Your task to perform on an android device: Search for the best selling coffee table on Crate & Barrel Image 0: 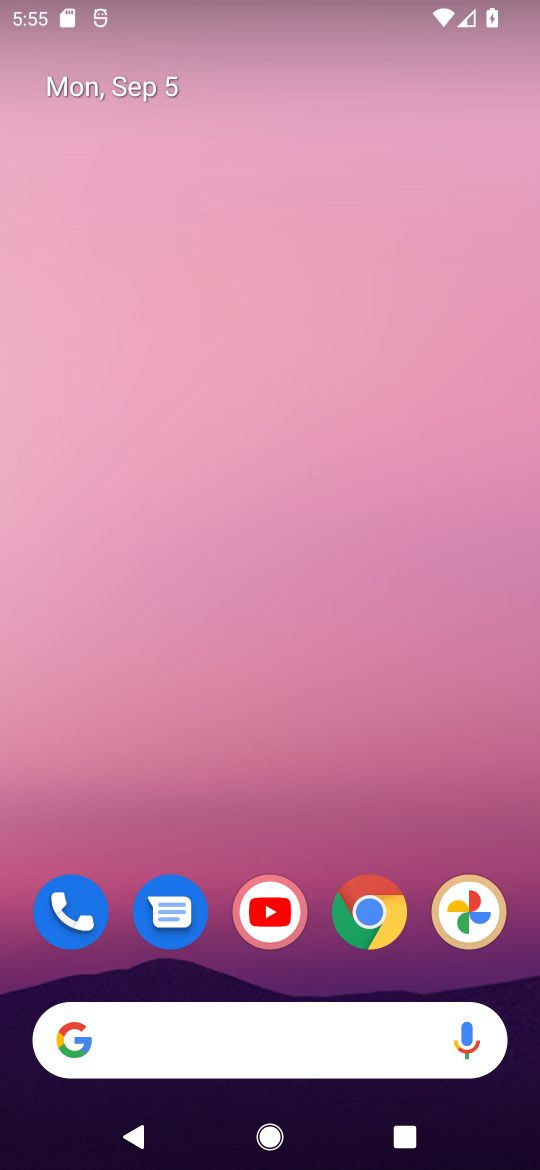
Step 0: click (369, 904)
Your task to perform on an android device: Search for the best selling coffee table on Crate & Barrel Image 1: 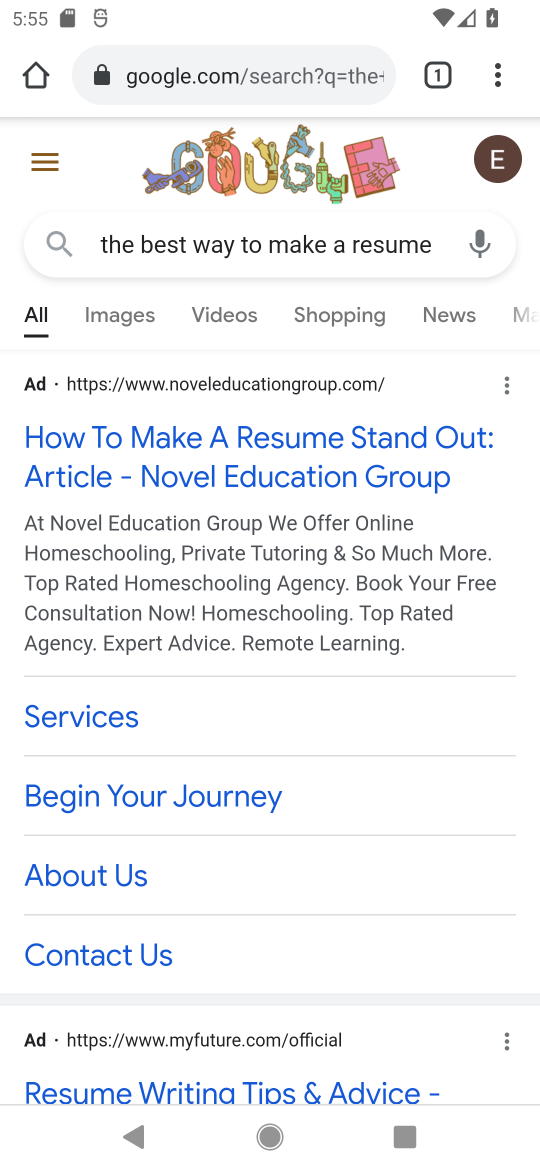
Step 1: click (224, 68)
Your task to perform on an android device: Search for the best selling coffee table on Crate & Barrel Image 2: 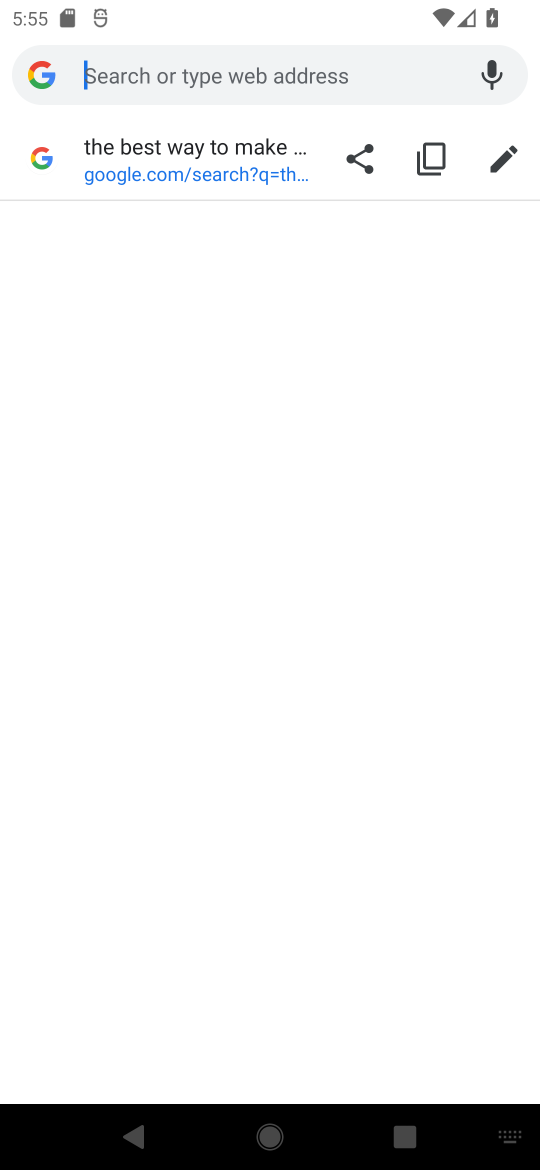
Step 2: type "crate and barrels"
Your task to perform on an android device: Search for the best selling coffee table on Crate & Barrel Image 3: 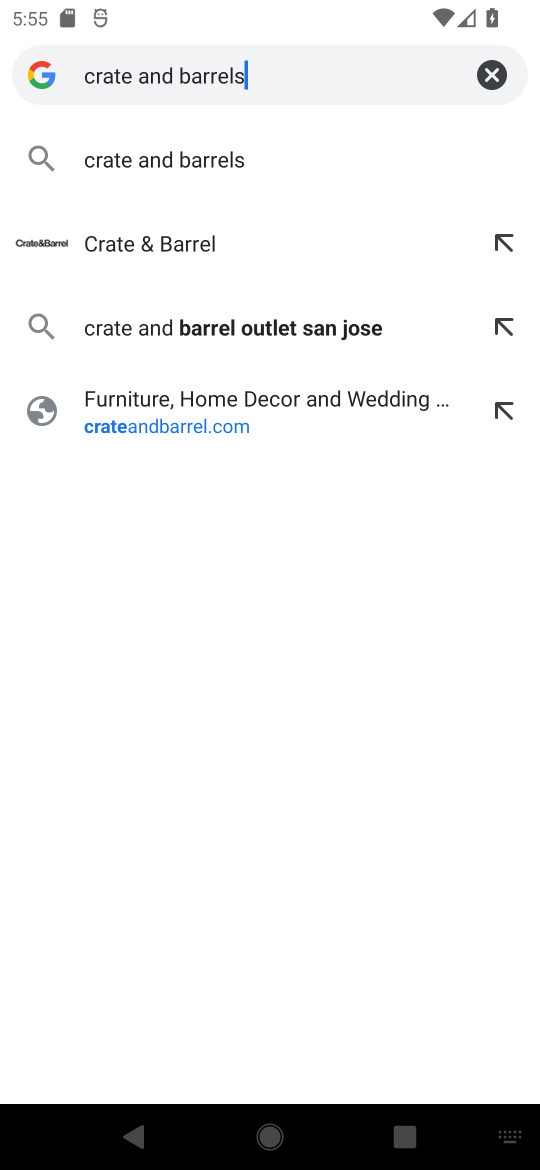
Step 3: click (204, 148)
Your task to perform on an android device: Search for the best selling coffee table on Crate & Barrel Image 4: 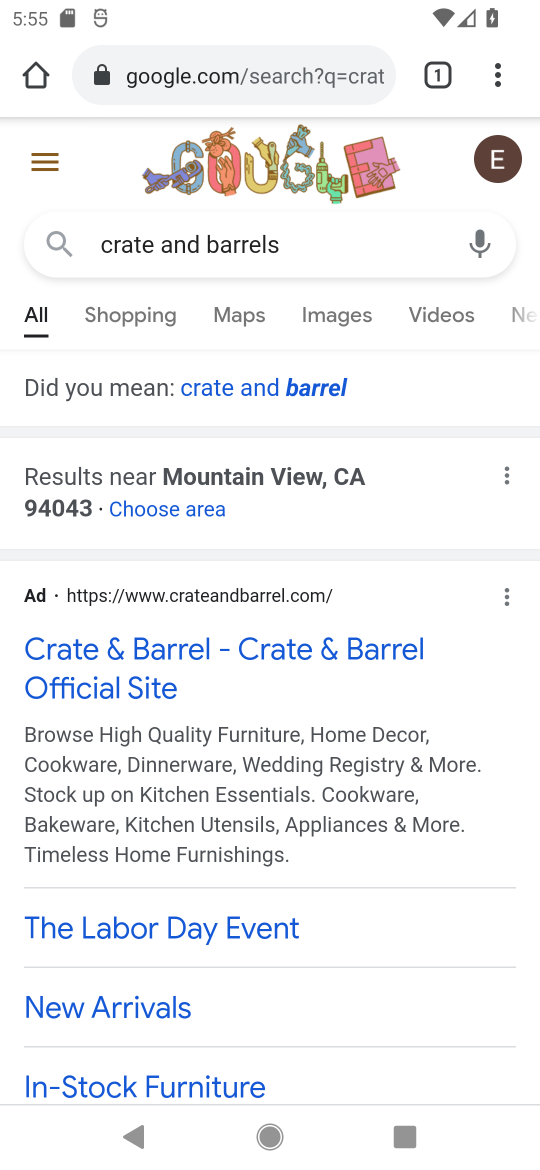
Step 4: click (143, 692)
Your task to perform on an android device: Search for the best selling coffee table on Crate & Barrel Image 5: 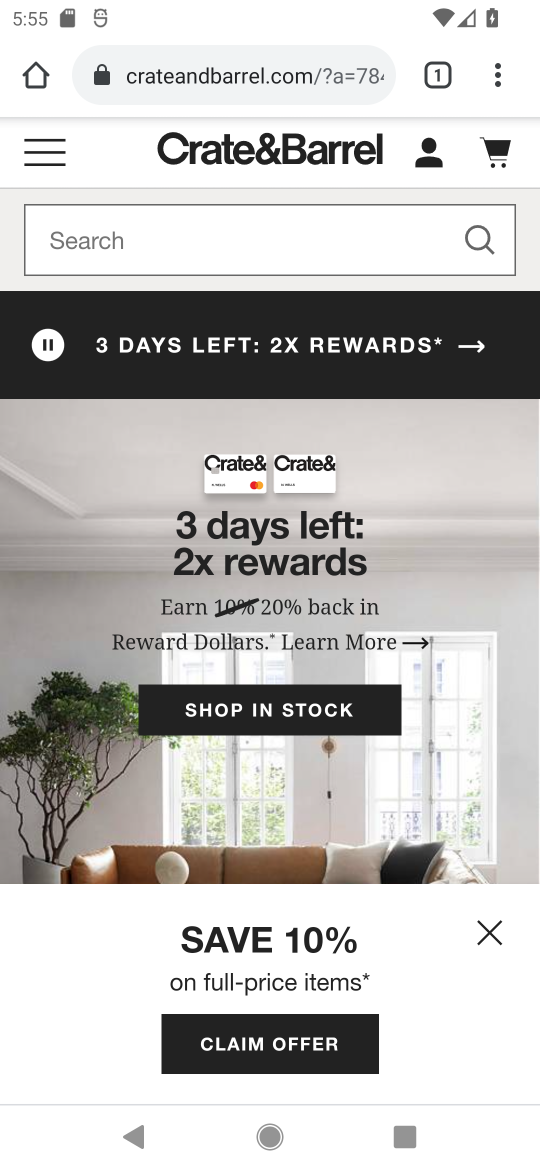
Step 5: click (241, 239)
Your task to perform on an android device: Search for the best selling coffee table on Crate & Barrel Image 6: 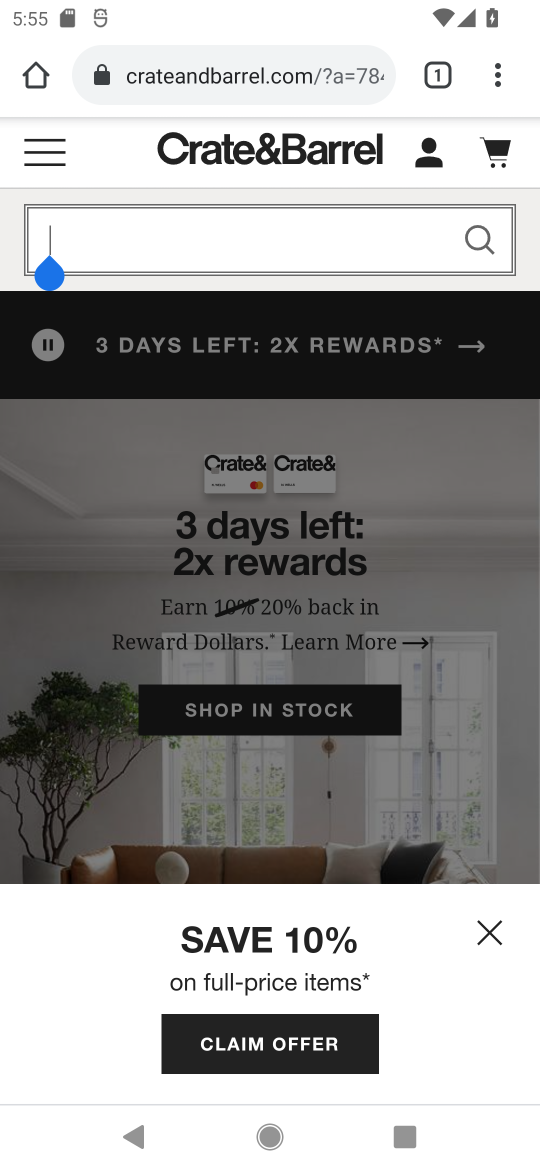
Step 6: drag from (457, 1163) to (442, 1075)
Your task to perform on an android device: Search for the best selling coffee table on Crate & Barrel Image 7: 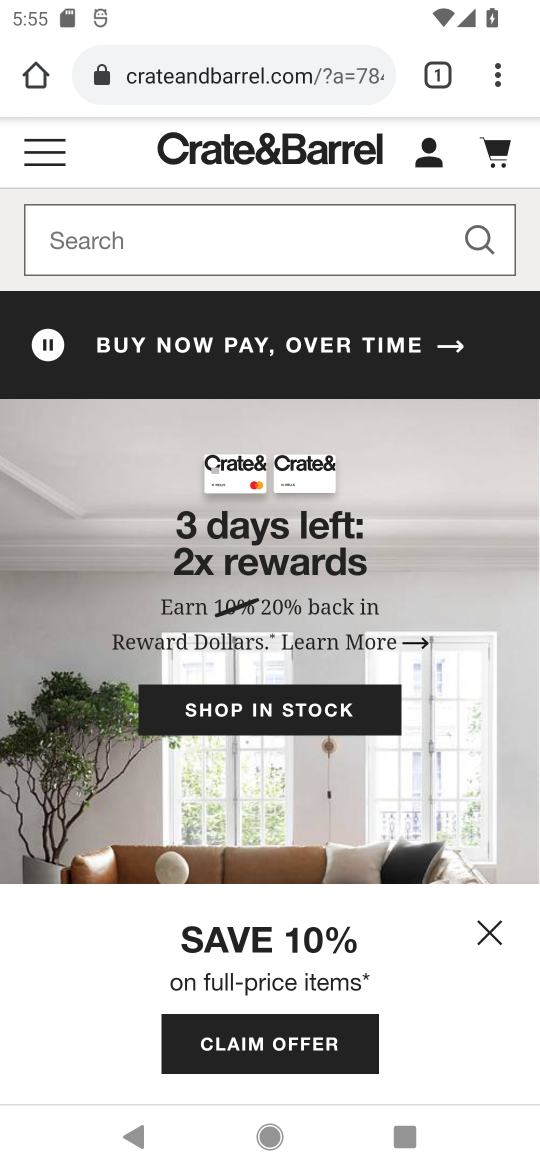
Step 7: type "the best selling coffee table"
Your task to perform on an android device: Search for the best selling coffee table on Crate & Barrel Image 8: 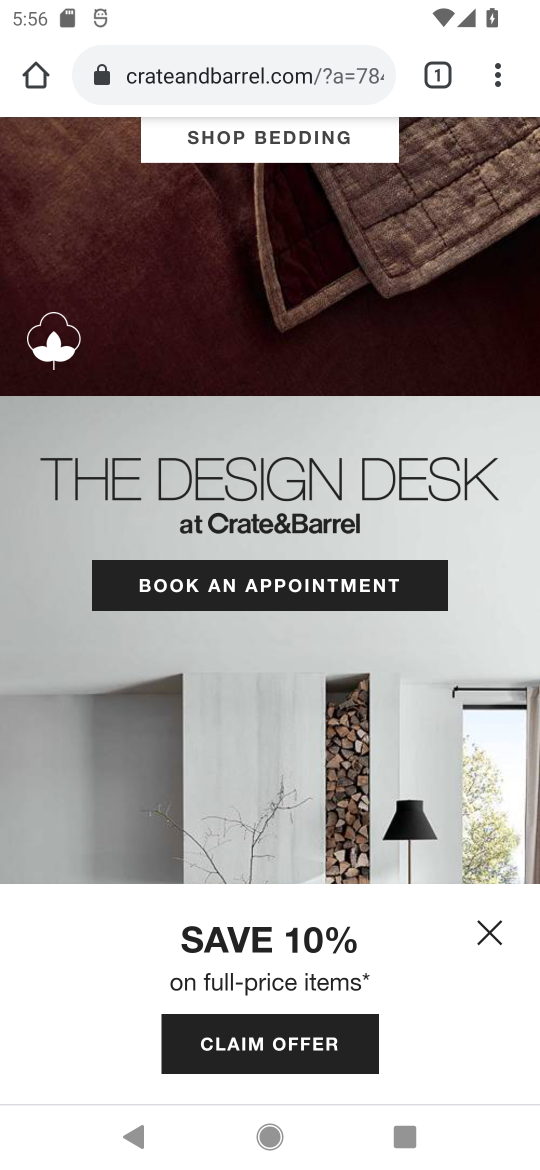
Step 8: click (487, 912)
Your task to perform on an android device: Search for the best selling coffee table on Crate & Barrel Image 9: 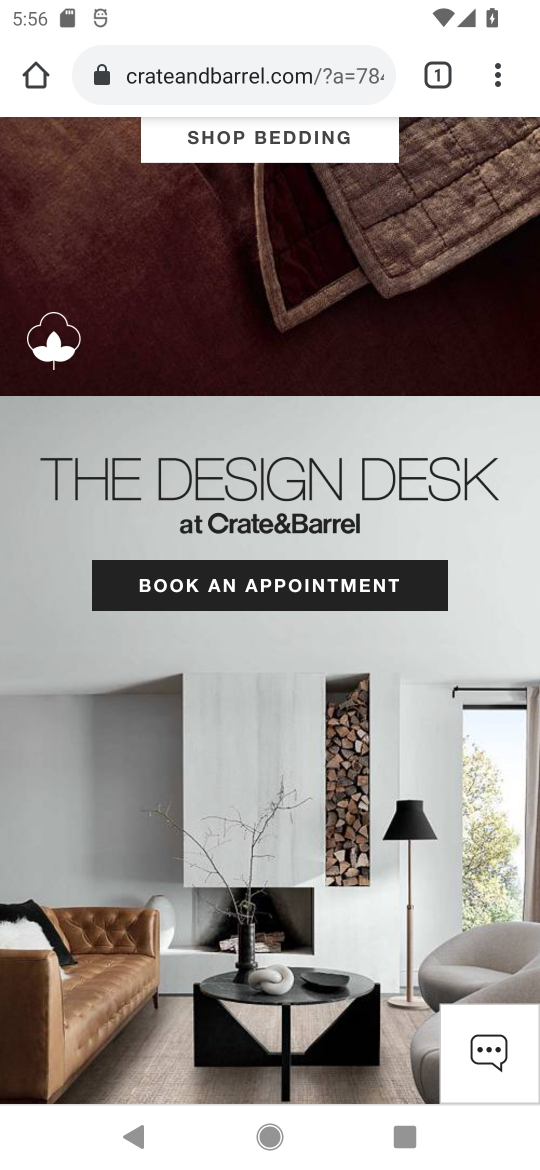
Step 9: drag from (158, 365) to (277, 666)
Your task to perform on an android device: Search for the best selling coffee table on Crate & Barrel Image 10: 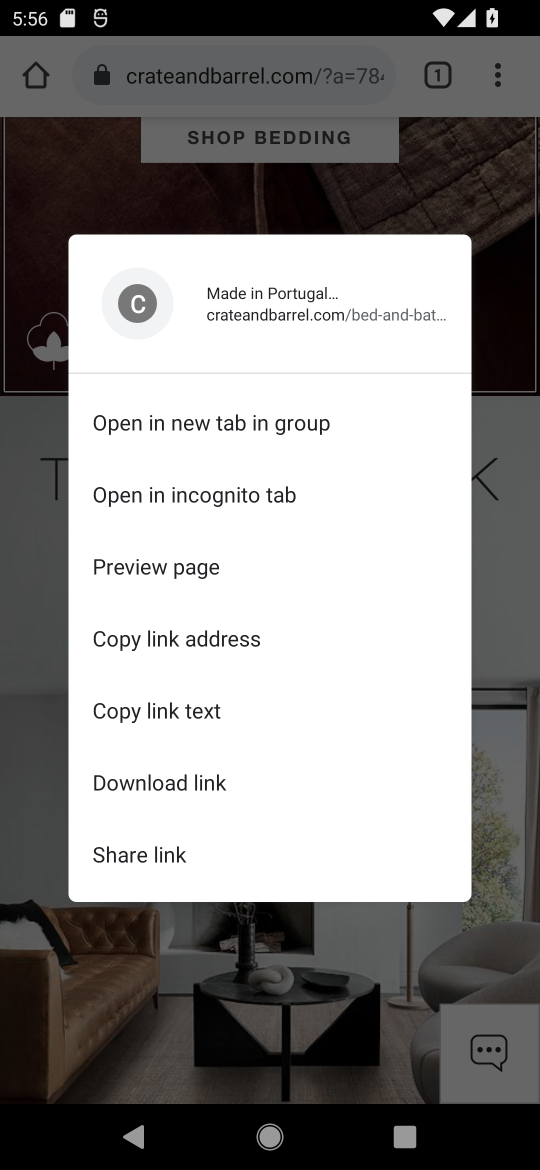
Step 10: click (288, 184)
Your task to perform on an android device: Search for the best selling coffee table on Crate & Barrel Image 11: 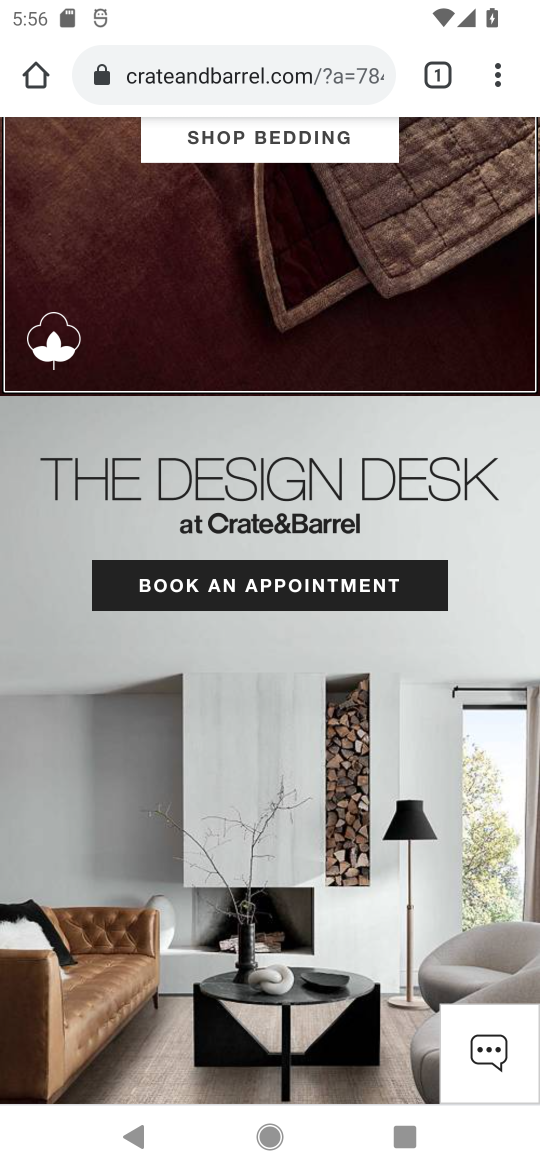
Step 11: click (289, 404)
Your task to perform on an android device: Search for the best selling coffee table on Crate & Barrel Image 12: 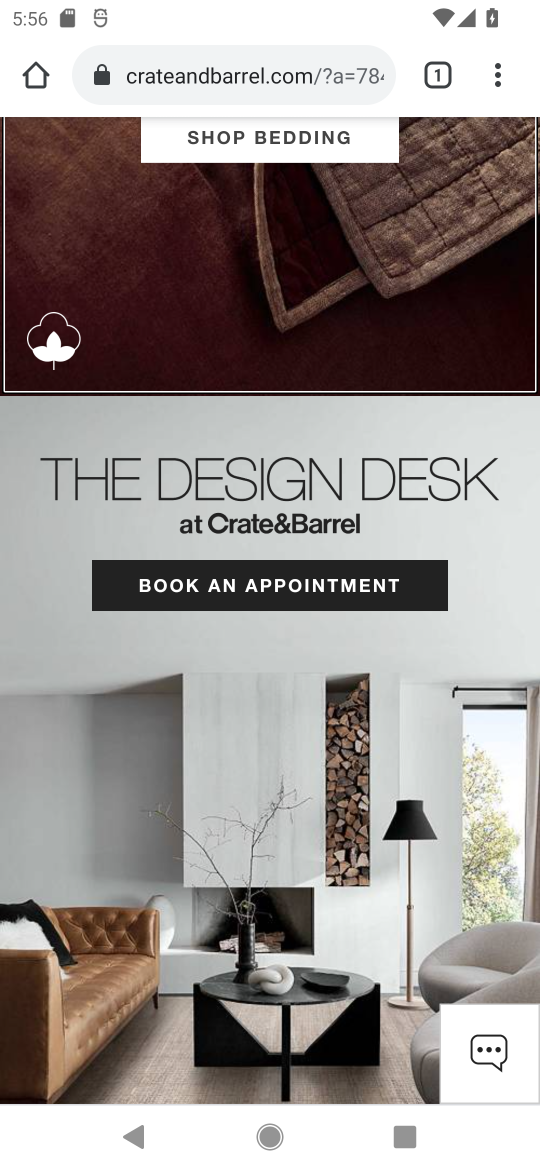
Step 12: click (321, 820)
Your task to perform on an android device: Search for the best selling coffee table on Crate & Barrel Image 13: 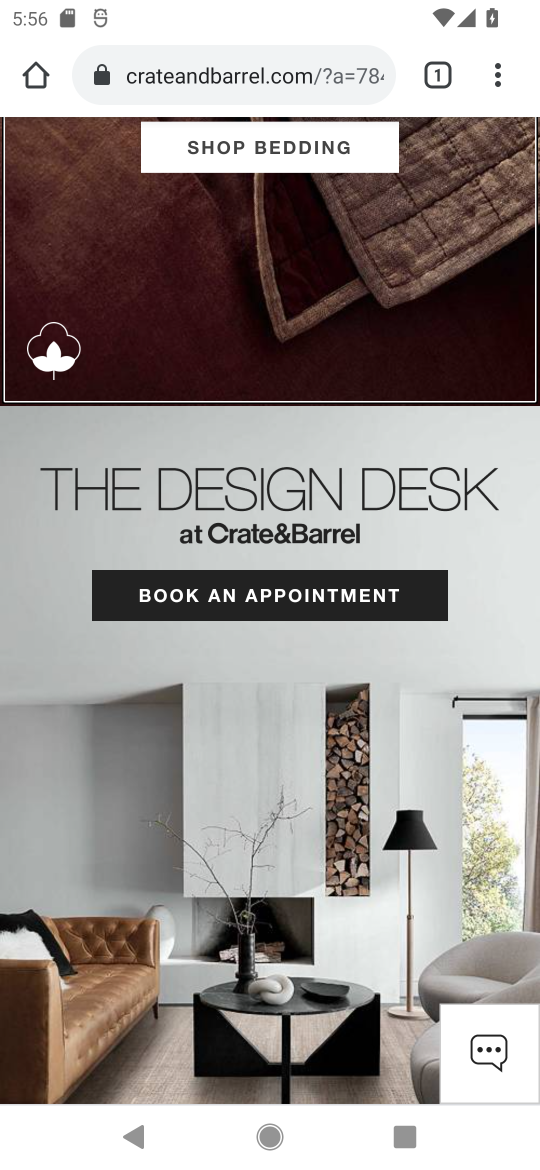
Step 13: click (381, 115)
Your task to perform on an android device: Search for the best selling coffee table on Crate & Barrel Image 14: 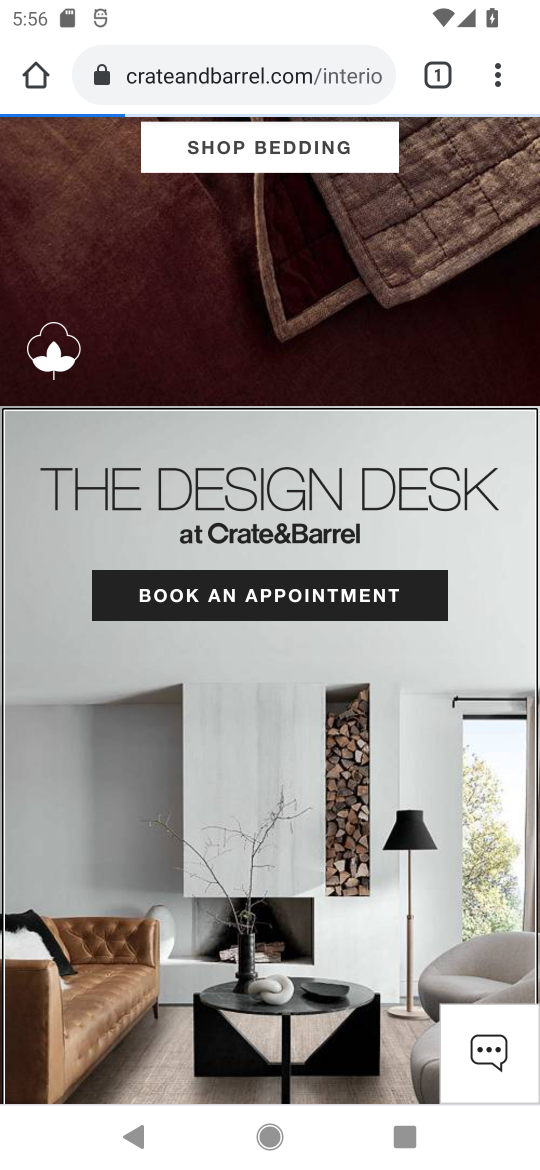
Step 14: drag from (362, 491) to (350, 424)
Your task to perform on an android device: Search for the best selling coffee table on Crate & Barrel Image 15: 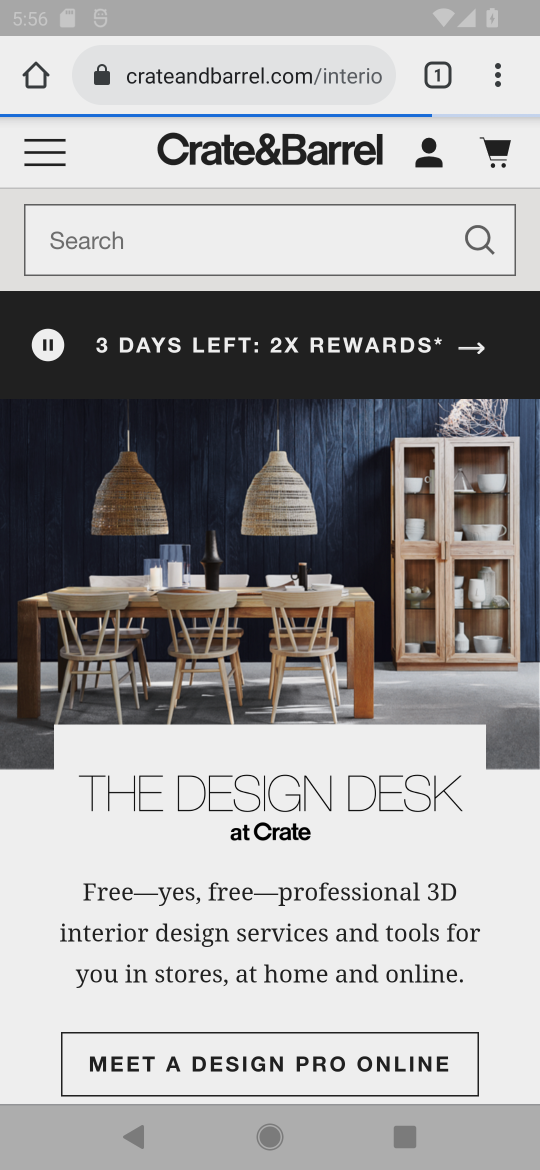
Step 15: click (202, 235)
Your task to perform on an android device: Search for the best selling coffee table on Crate & Barrel Image 16: 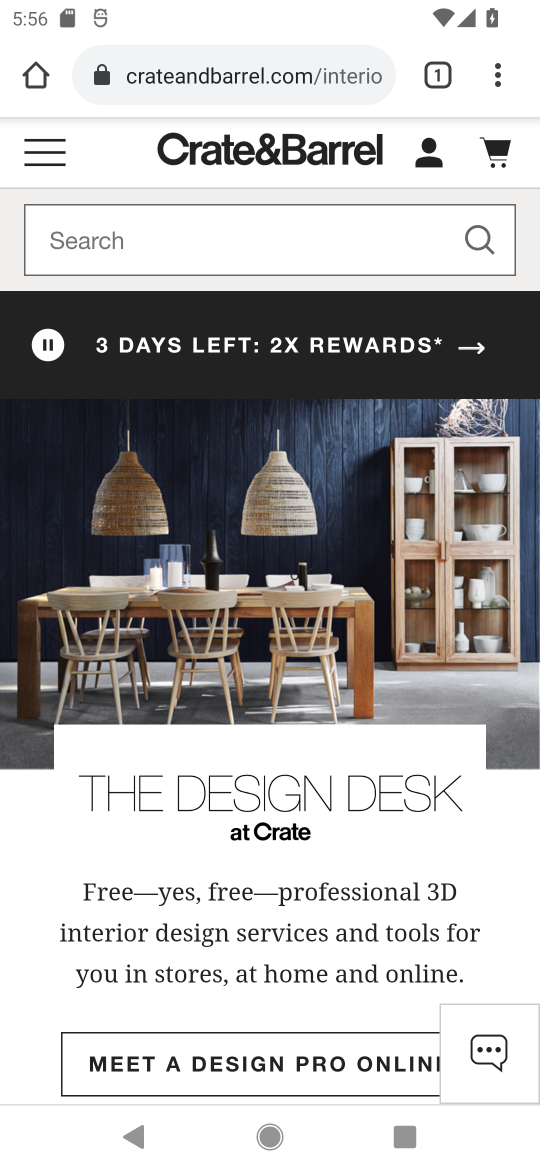
Step 16: click (202, 235)
Your task to perform on an android device: Search for the best selling coffee table on Crate & Barrel Image 17: 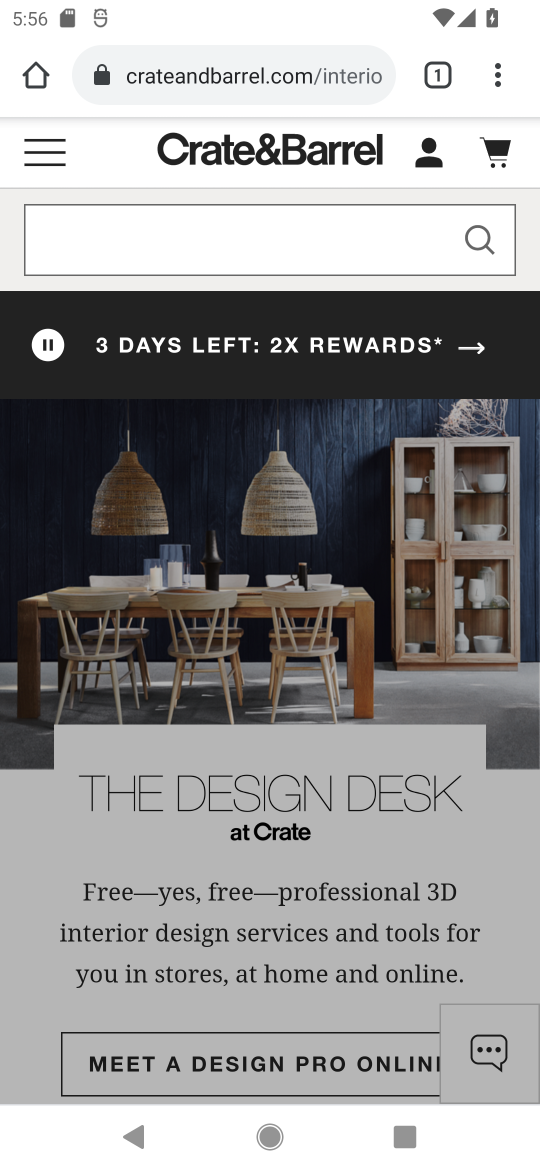
Step 17: click (202, 235)
Your task to perform on an android device: Search for the best selling coffee table on Crate & Barrel Image 18: 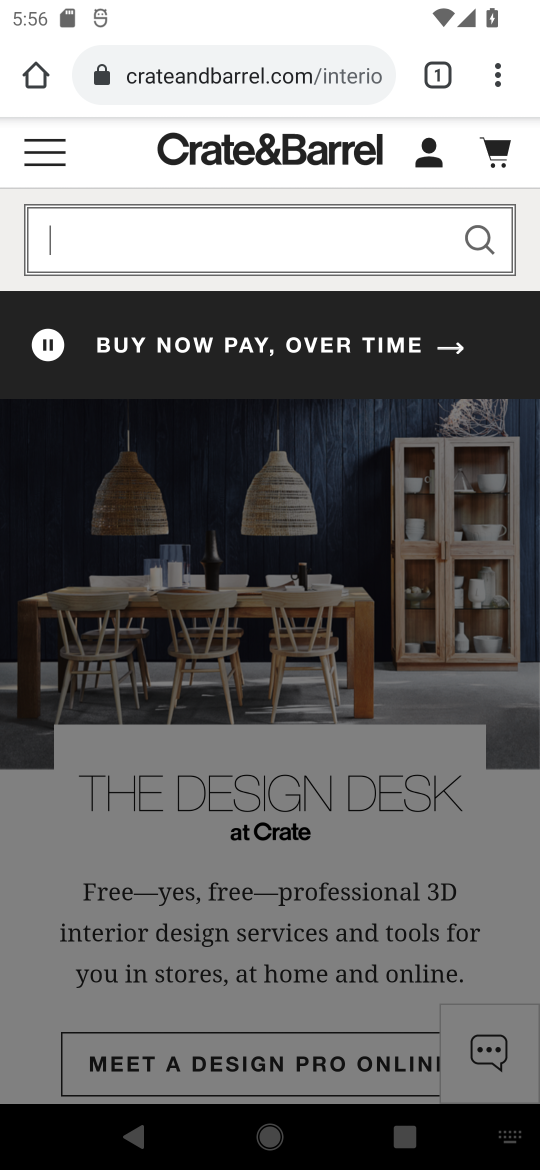
Step 18: type "the best selling coffee table"
Your task to perform on an android device: Search for the best selling coffee table on Crate & Barrel Image 19: 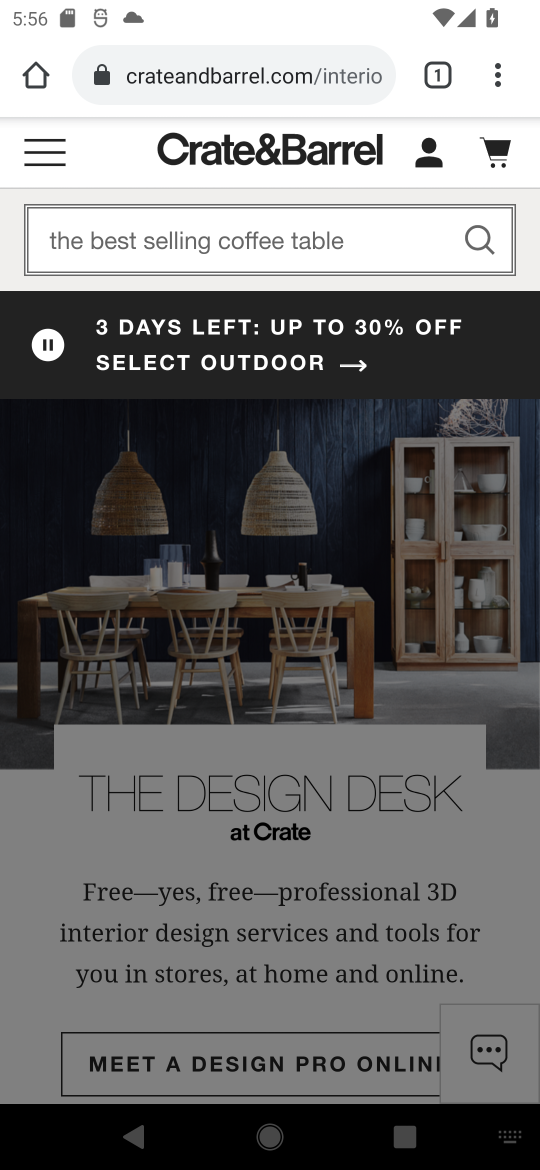
Step 19: click (481, 238)
Your task to perform on an android device: Search for the best selling coffee table on Crate & Barrel Image 20: 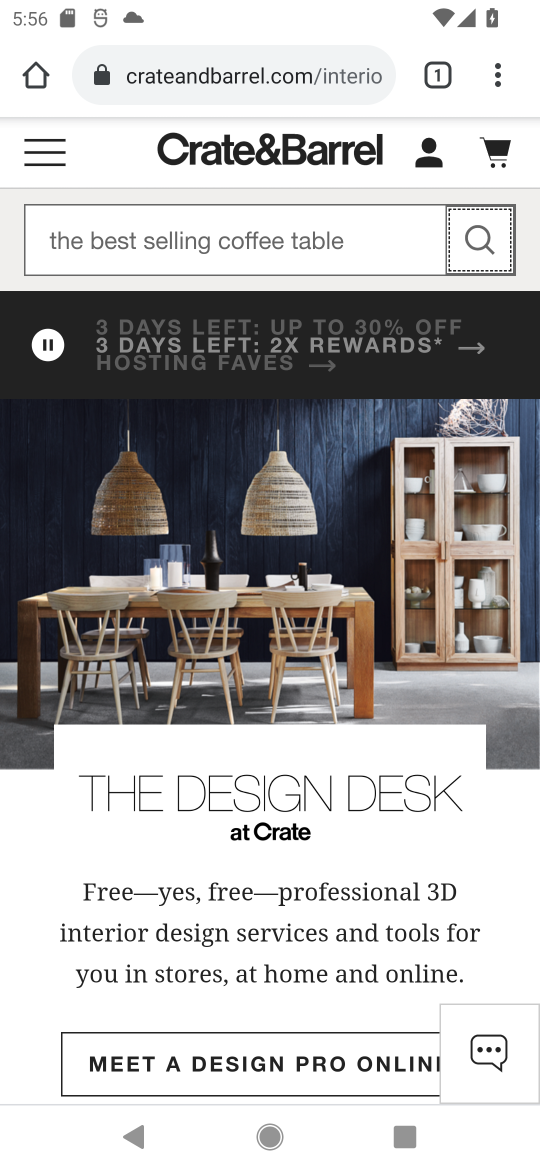
Step 20: click (475, 238)
Your task to perform on an android device: Search for the best selling coffee table on Crate & Barrel Image 21: 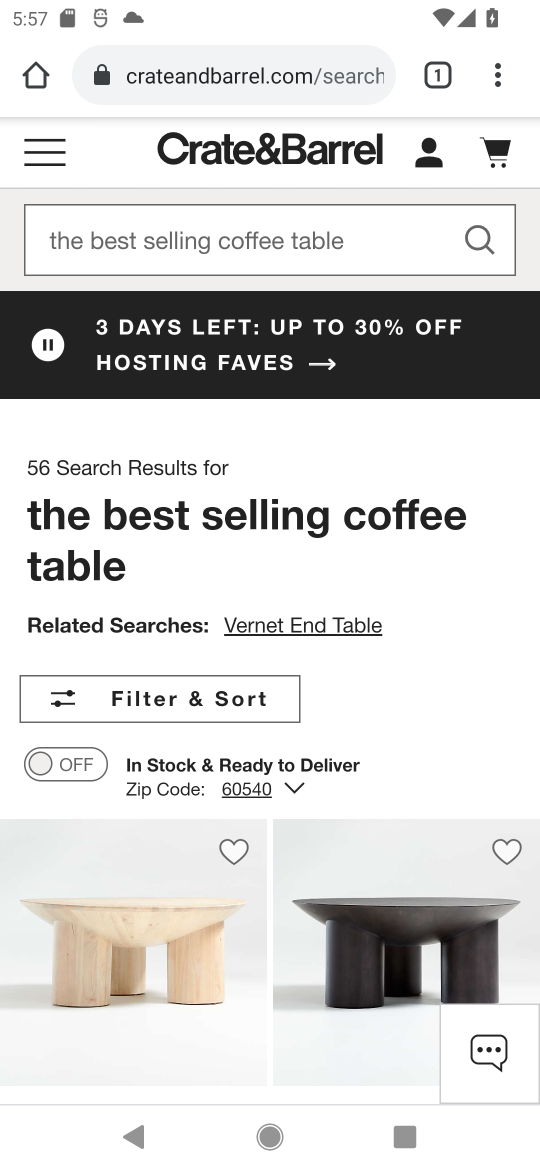
Step 21: task complete